Your task to perform on an android device: Go to Amazon Image 0: 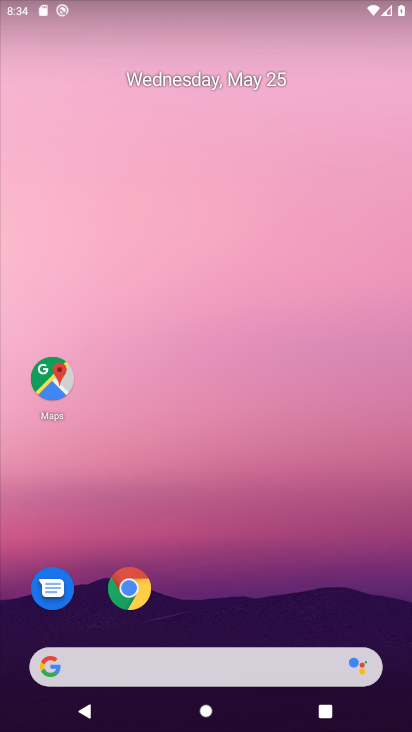
Step 0: drag from (320, 598) to (339, 199)
Your task to perform on an android device: Go to Amazon Image 1: 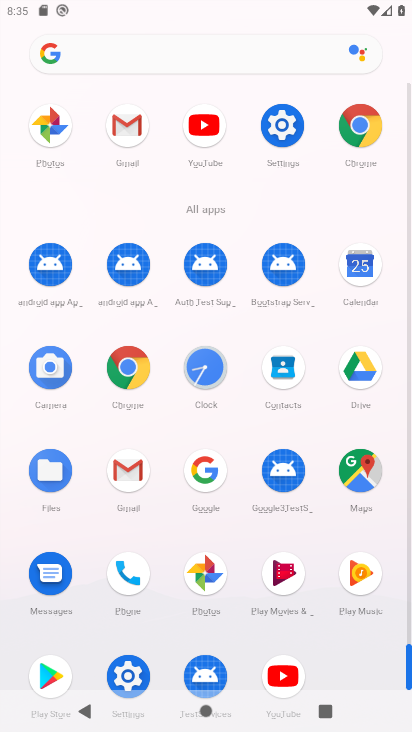
Step 1: click (141, 389)
Your task to perform on an android device: Go to Amazon Image 2: 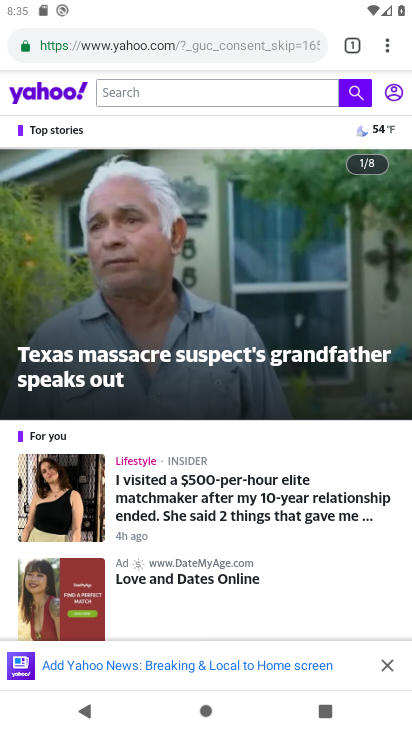
Step 2: click (252, 45)
Your task to perform on an android device: Go to Amazon Image 3: 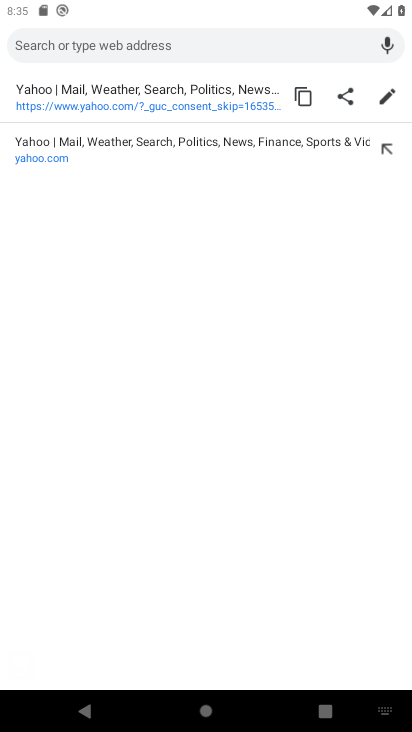
Step 3: type "Amazon"
Your task to perform on an android device: Go to Amazon Image 4: 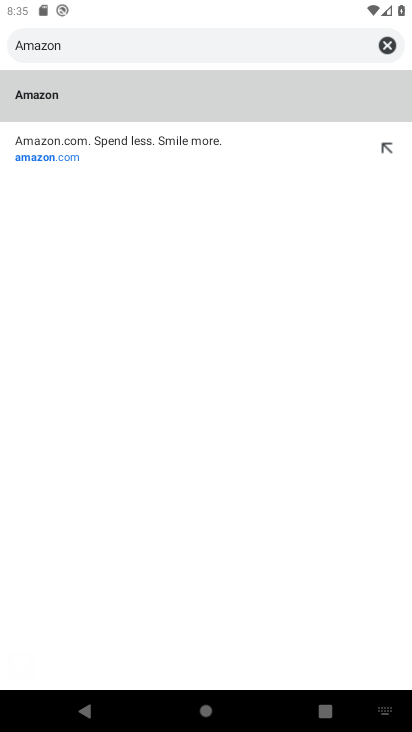
Step 4: click (148, 139)
Your task to perform on an android device: Go to Amazon Image 5: 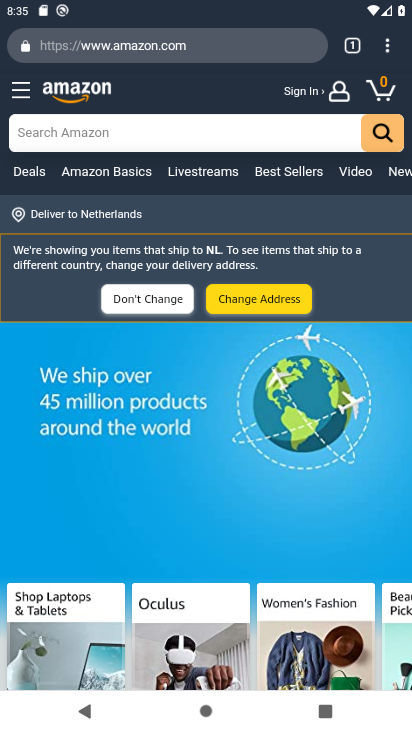
Step 5: task complete